Your task to perform on an android device: Go to settings Image 0: 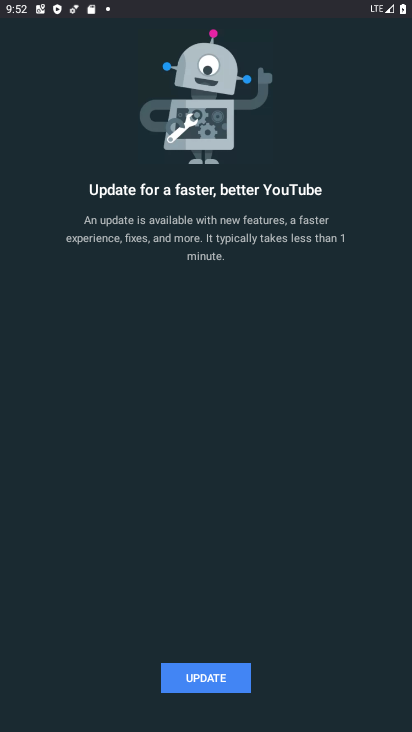
Step 0: press home button
Your task to perform on an android device: Go to settings Image 1: 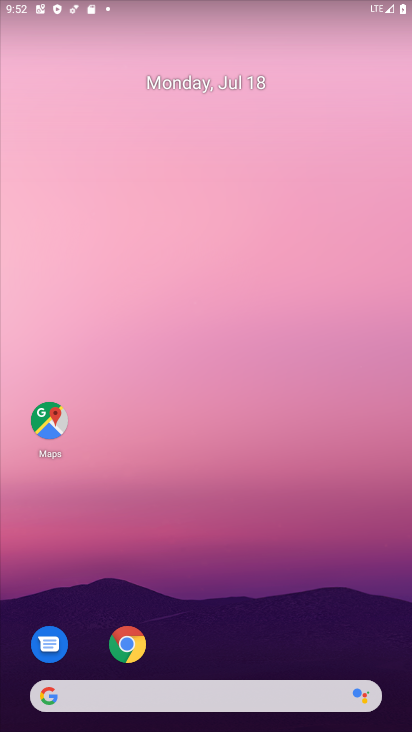
Step 1: drag from (350, 605) to (378, 100)
Your task to perform on an android device: Go to settings Image 2: 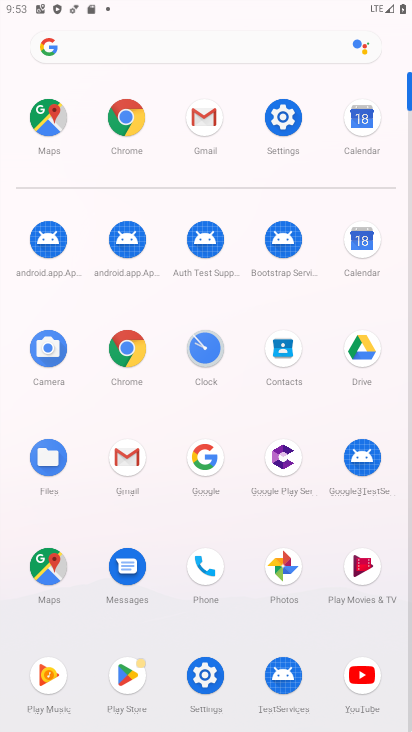
Step 2: click (282, 129)
Your task to perform on an android device: Go to settings Image 3: 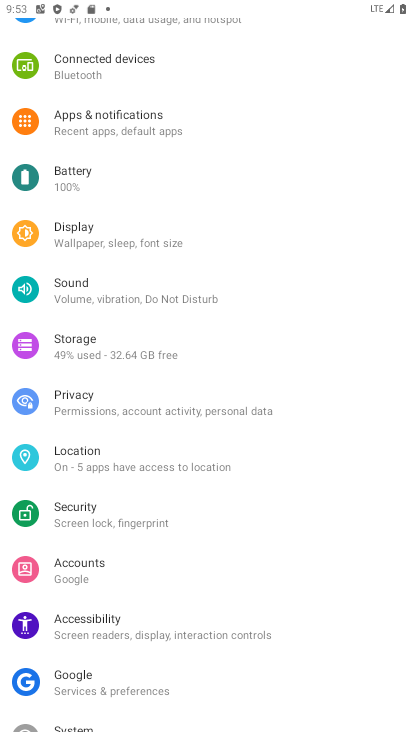
Step 3: task complete